Your task to perform on an android device: turn off location Image 0: 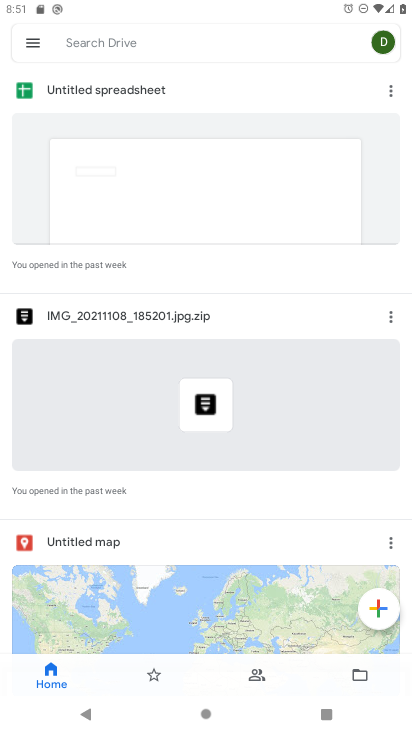
Step 0: press home button
Your task to perform on an android device: turn off location Image 1: 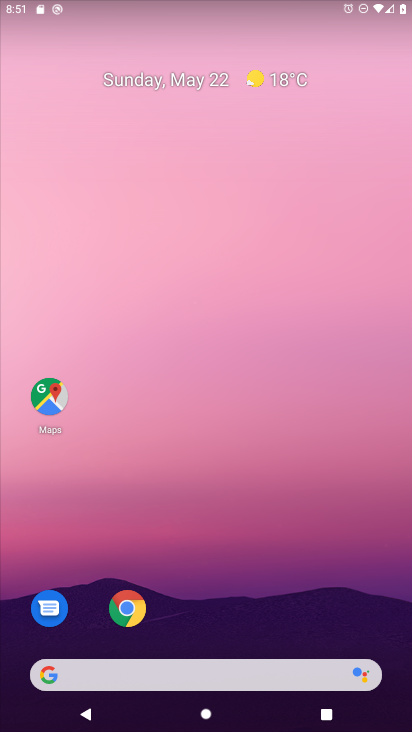
Step 1: drag from (229, 645) to (234, 183)
Your task to perform on an android device: turn off location Image 2: 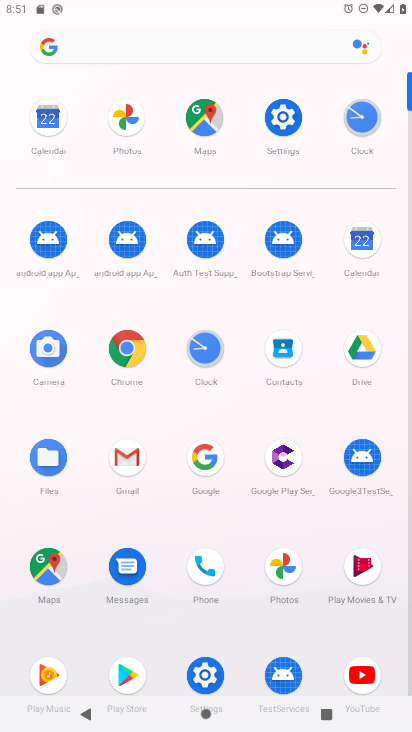
Step 2: click (278, 105)
Your task to perform on an android device: turn off location Image 3: 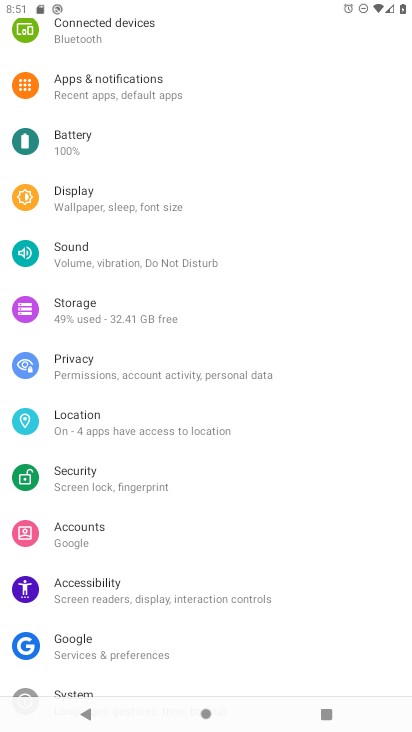
Step 3: click (80, 420)
Your task to perform on an android device: turn off location Image 4: 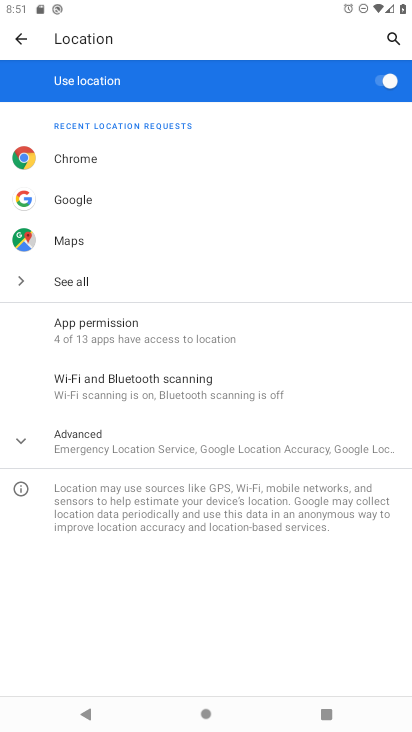
Step 4: click (380, 82)
Your task to perform on an android device: turn off location Image 5: 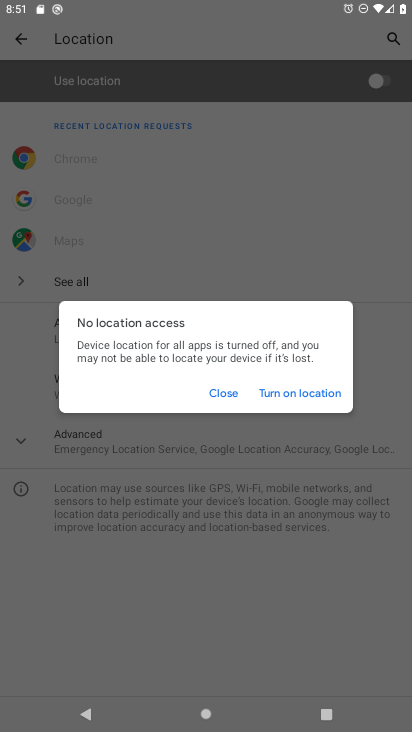
Step 5: click (224, 393)
Your task to perform on an android device: turn off location Image 6: 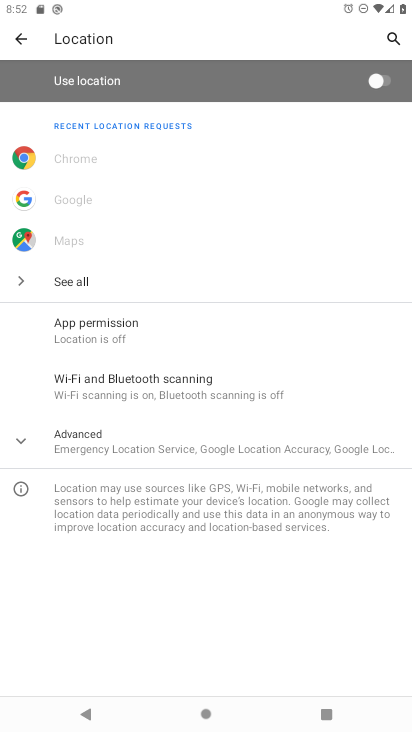
Step 6: task complete